Your task to perform on an android device: Search for nike dri-fit shirts on Nike Image 0: 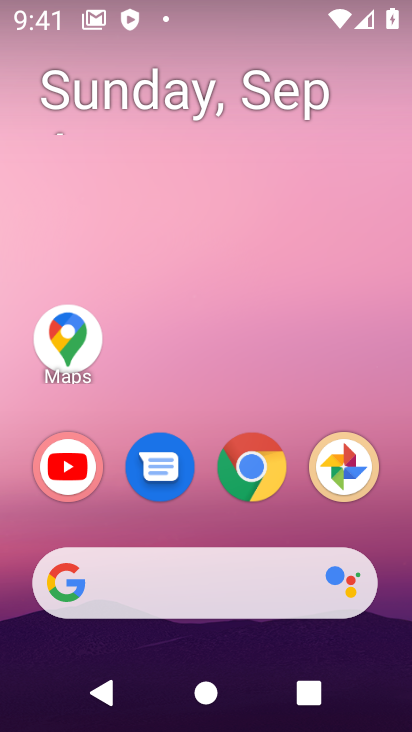
Step 0: click (267, 468)
Your task to perform on an android device: Search for nike dri-fit shirts on Nike Image 1: 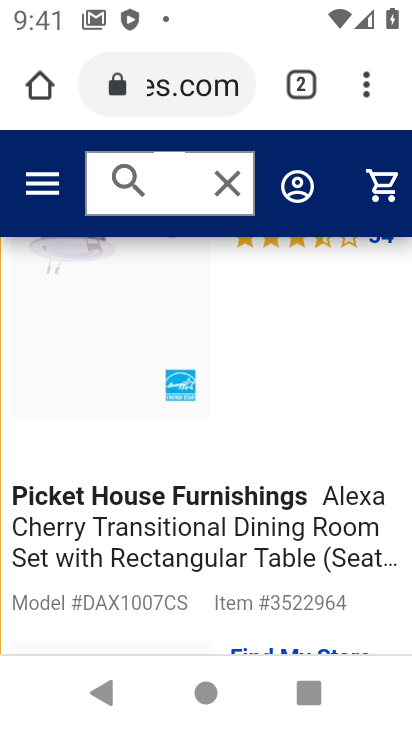
Step 1: click (191, 95)
Your task to perform on an android device: Search for nike dri-fit shirts on Nike Image 2: 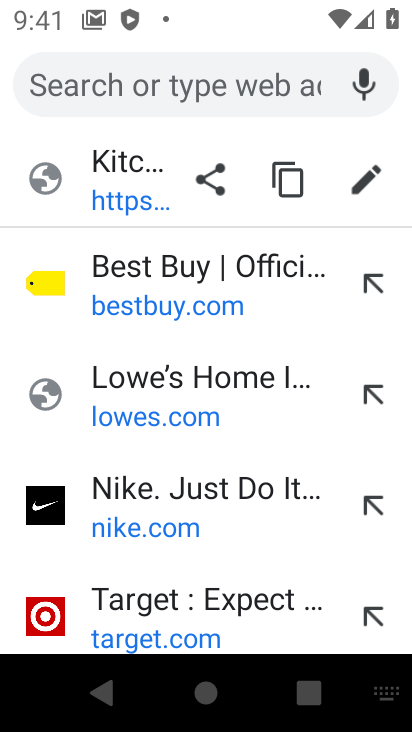
Step 2: type "nike"
Your task to perform on an android device: Search for nike dri-fit shirts on Nike Image 3: 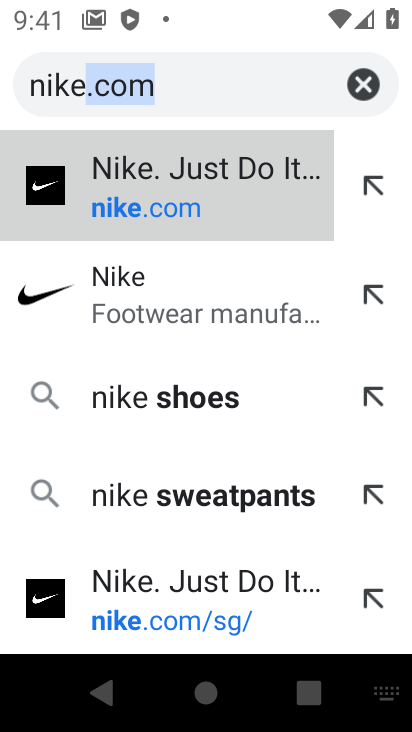
Step 3: type ""
Your task to perform on an android device: Search for nike dri-fit shirts on Nike Image 4: 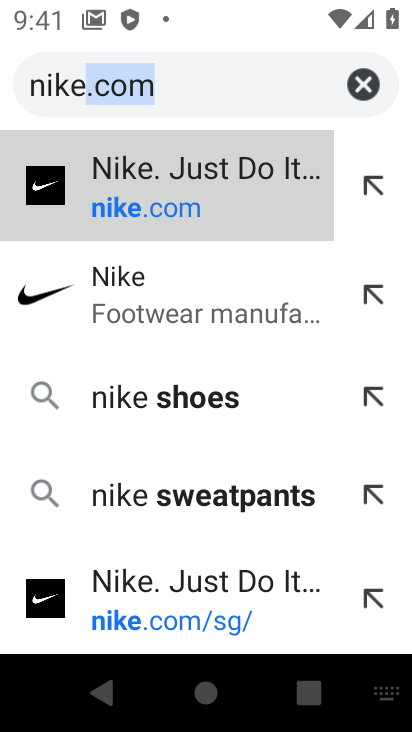
Step 4: click (122, 205)
Your task to perform on an android device: Search for nike dri-fit shirts on Nike Image 5: 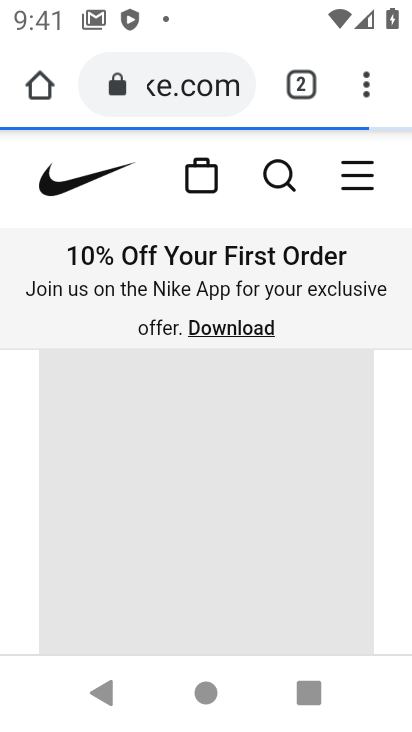
Step 5: click (287, 174)
Your task to perform on an android device: Search for nike dri-fit shirts on Nike Image 6: 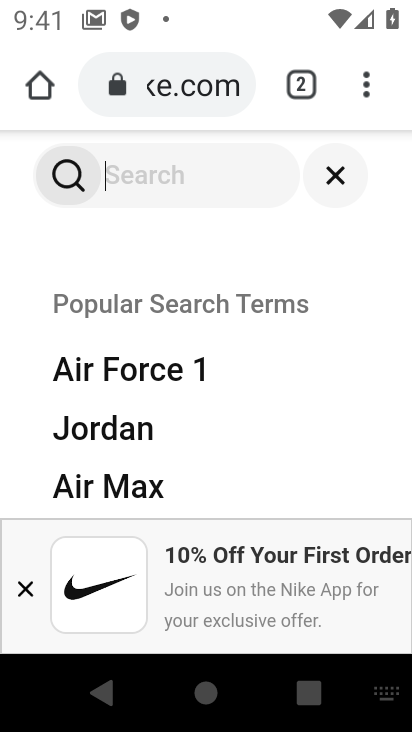
Step 6: type "nike dri fit shirts"
Your task to perform on an android device: Search for nike dri-fit shirts on Nike Image 7: 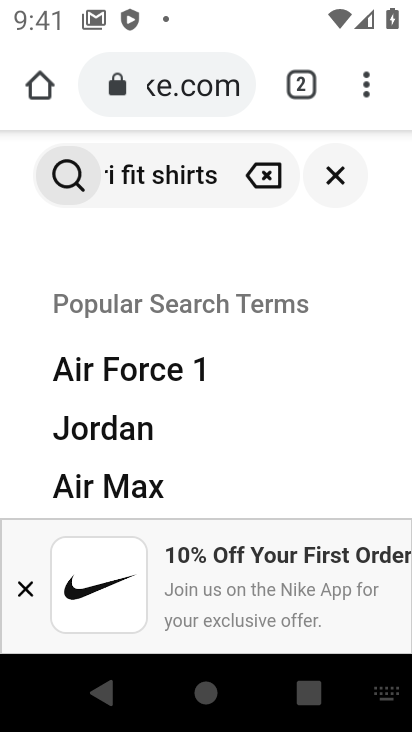
Step 7: drag from (256, 452) to (274, 329)
Your task to perform on an android device: Search for nike dri-fit shirts on Nike Image 8: 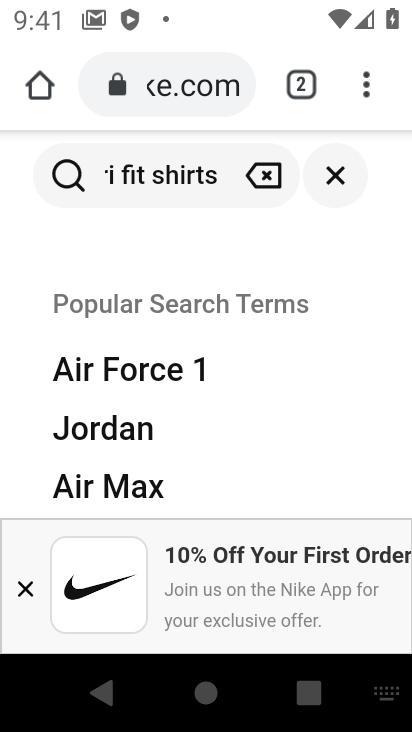
Step 8: click (59, 176)
Your task to perform on an android device: Search for nike dri-fit shirts on Nike Image 9: 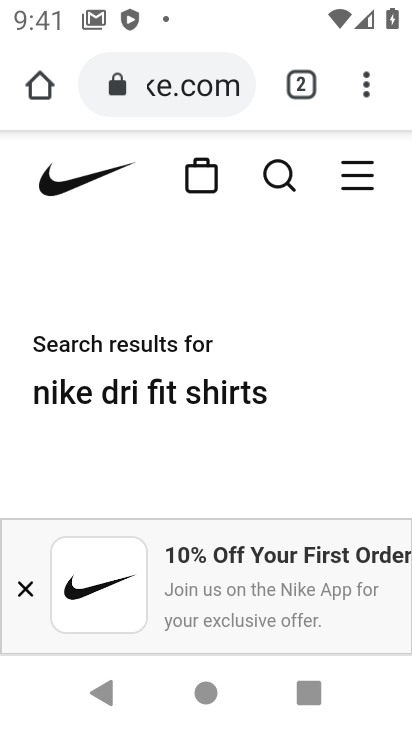
Step 9: drag from (360, 447) to (347, 338)
Your task to perform on an android device: Search for nike dri-fit shirts on Nike Image 10: 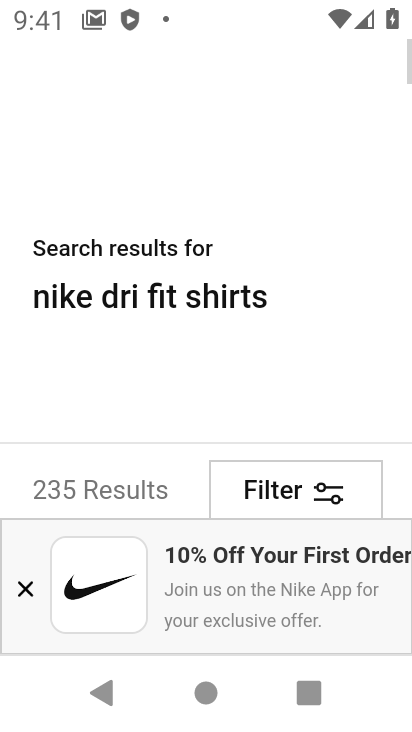
Step 10: click (23, 590)
Your task to perform on an android device: Search for nike dri-fit shirts on Nike Image 11: 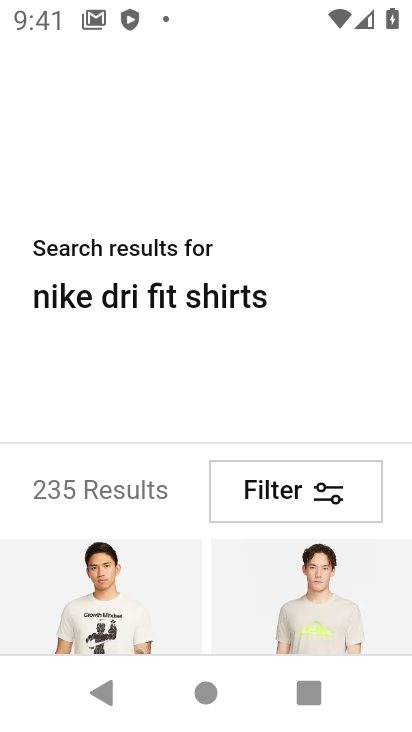
Step 11: drag from (374, 584) to (380, 278)
Your task to perform on an android device: Search for nike dri-fit shirts on Nike Image 12: 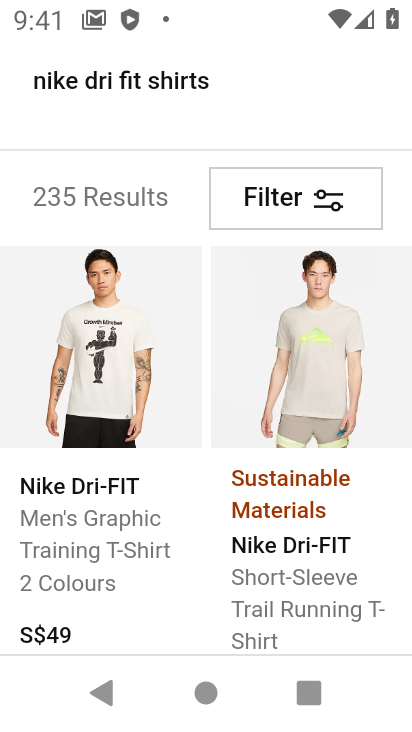
Step 12: drag from (212, 523) to (257, 110)
Your task to perform on an android device: Search for nike dri-fit shirts on Nike Image 13: 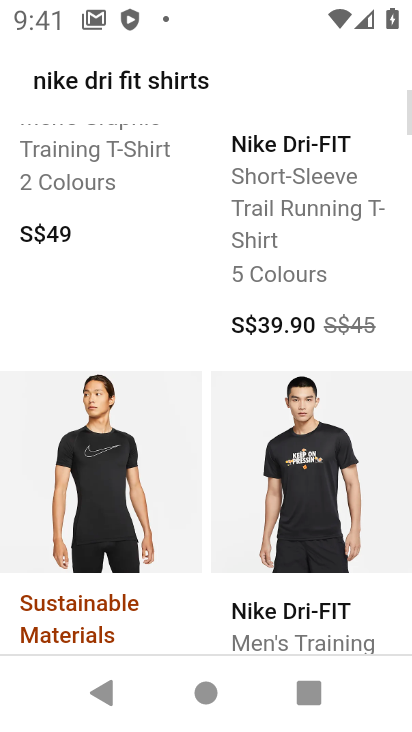
Step 13: drag from (229, 519) to (235, 348)
Your task to perform on an android device: Search for nike dri-fit shirts on Nike Image 14: 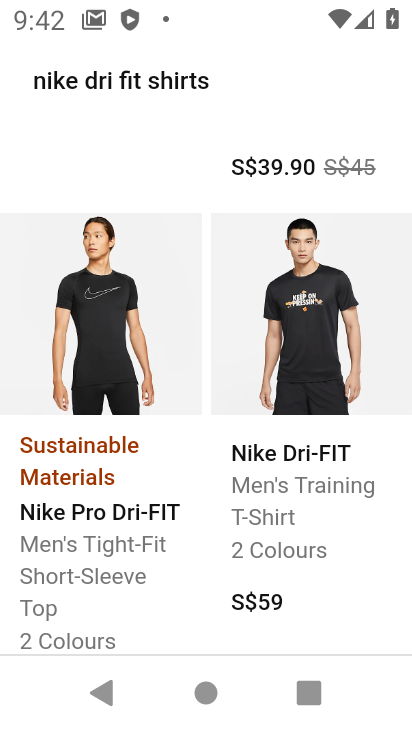
Step 14: drag from (329, 570) to (333, 217)
Your task to perform on an android device: Search for nike dri-fit shirts on Nike Image 15: 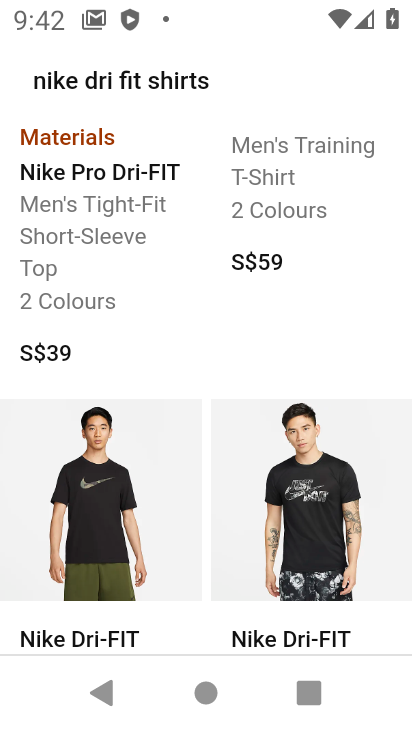
Step 15: drag from (401, 517) to (410, 45)
Your task to perform on an android device: Search for nike dri-fit shirts on Nike Image 16: 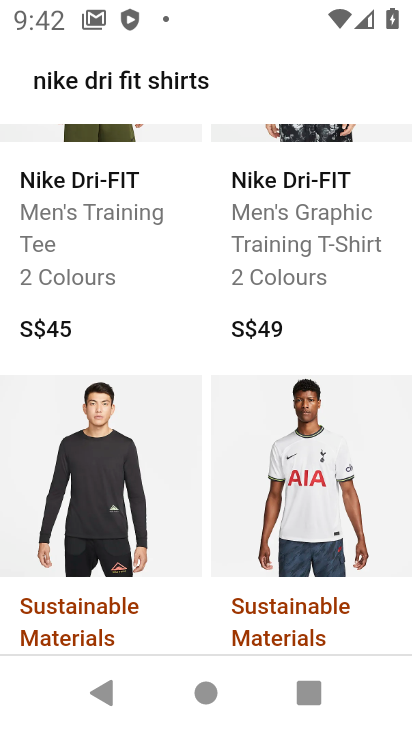
Step 16: drag from (378, 575) to (357, 65)
Your task to perform on an android device: Search for nike dri-fit shirts on Nike Image 17: 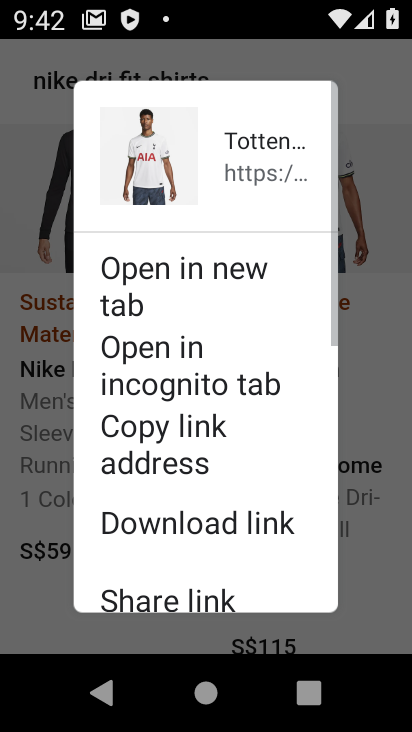
Step 17: click (387, 383)
Your task to perform on an android device: Search for nike dri-fit shirts on Nike Image 18: 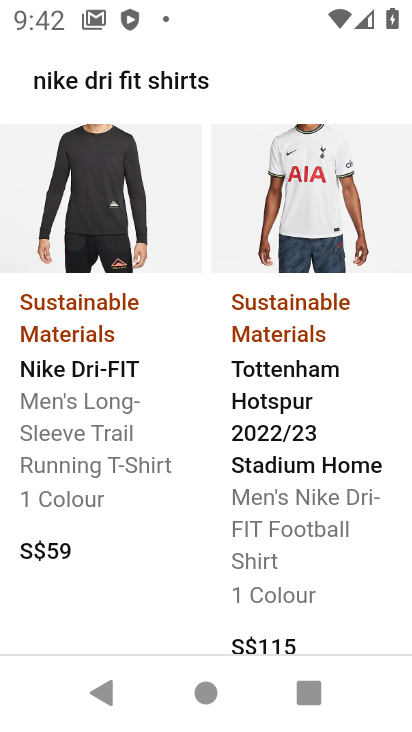
Step 18: task complete